Your task to perform on an android device: turn off location Image 0: 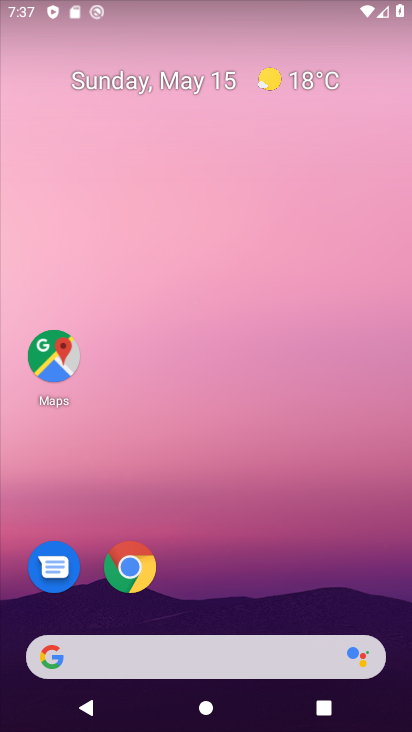
Step 0: drag from (152, 710) to (317, 0)
Your task to perform on an android device: turn off location Image 1: 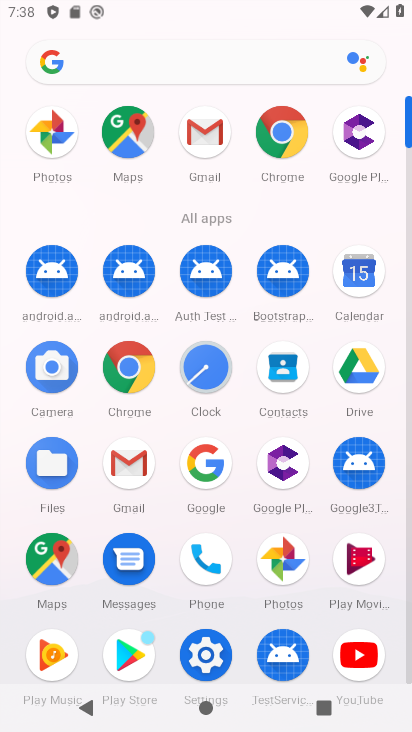
Step 1: click (123, 130)
Your task to perform on an android device: turn off location Image 2: 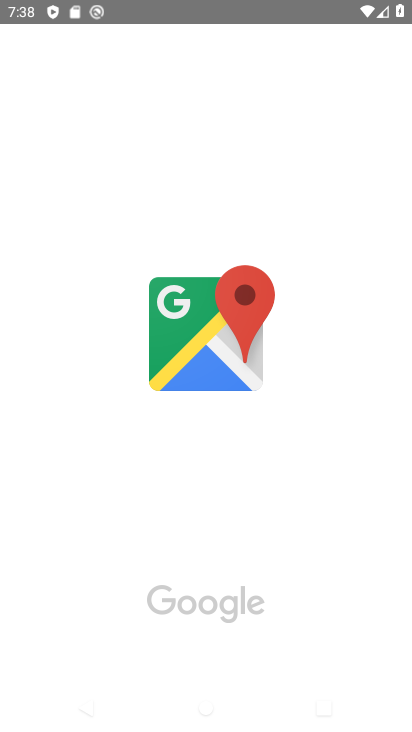
Step 2: press home button
Your task to perform on an android device: turn off location Image 3: 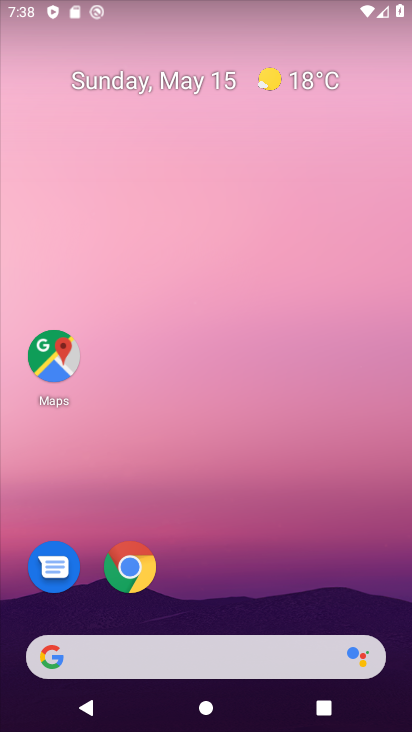
Step 3: drag from (279, 714) to (183, 229)
Your task to perform on an android device: turn off location Image 4: 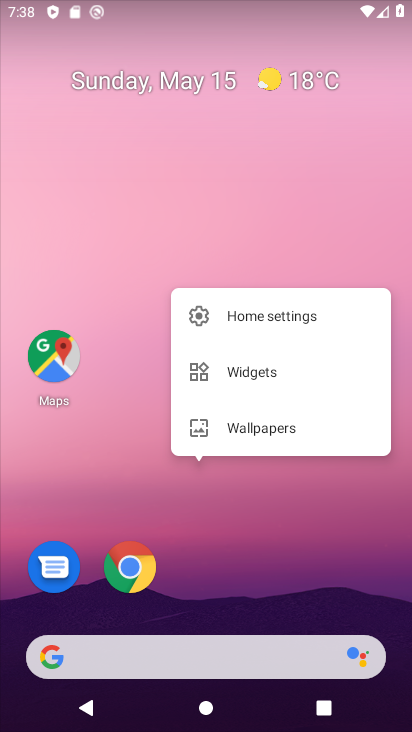
Step 4: click (269, 496)
Your task to perform on an android device: turn off location Image 5: 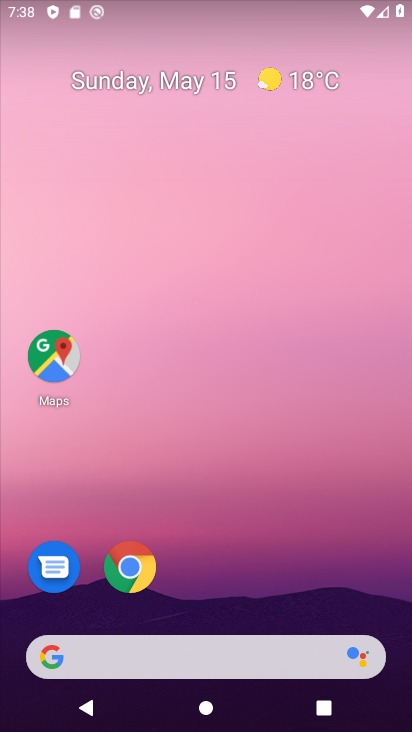
Step 5: click (258, 718)
Your task to perform on an android device: turn off location Image 6: 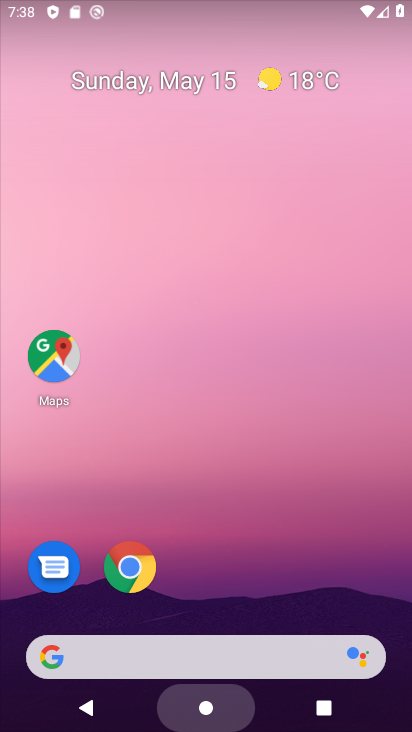
Step 6: drag from (258, 717) to (203, 7)
Your task to perform on an android device: turn off location Image 7: 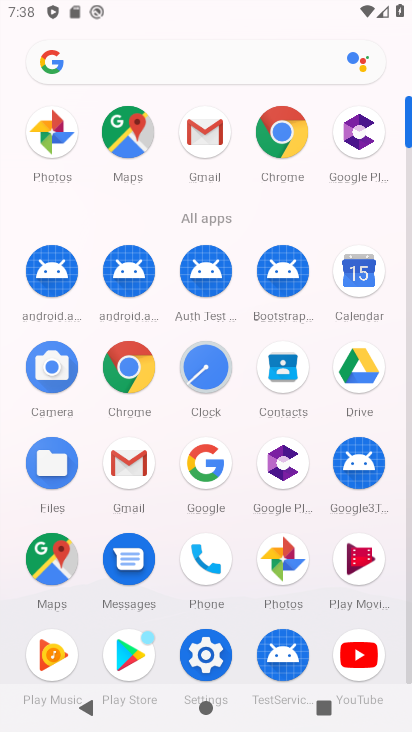
Step 7: click (223, 655)
Your task to perform on an android device: turn off location Image 8: 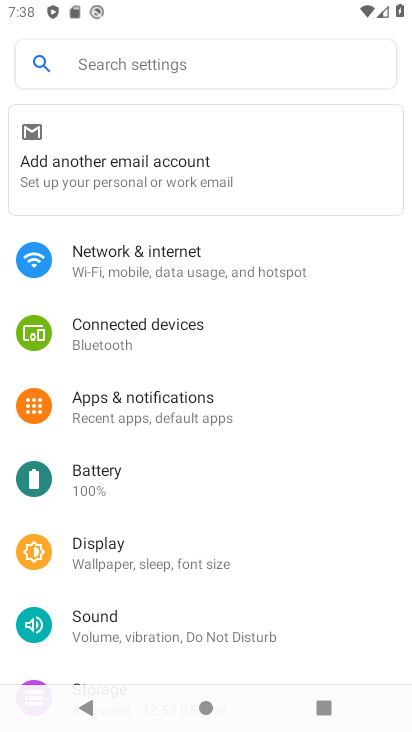
Step 8: drag from (217, 587) to (197, 108)
Your task to perform on an android device: turn off location Image 9: 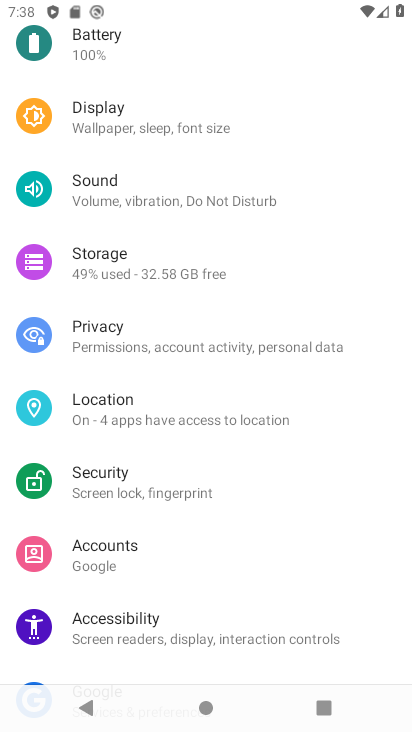
Step 9: click (195, 417)
Your task to perform on an android device: turn off location Image 10: 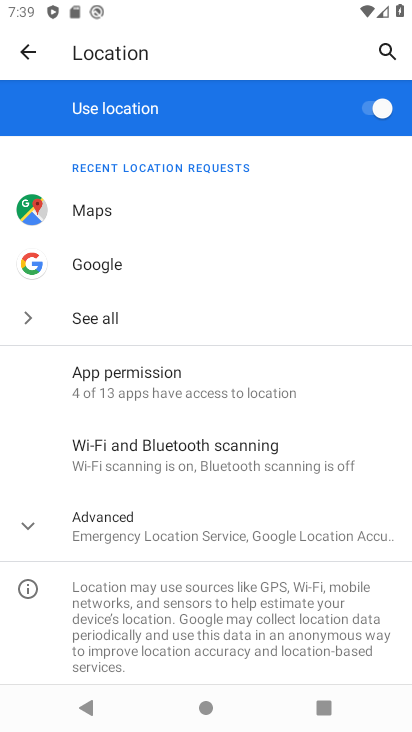
Step 10: click (382, 112)
Your task to perform on an android device: turn off location Image 11: 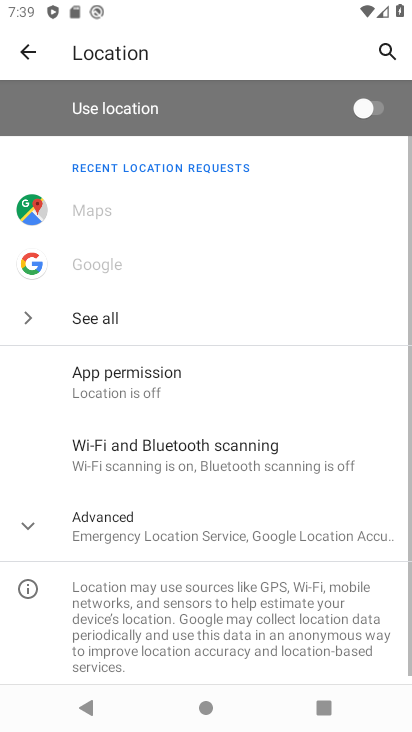
Step 11: task complete